Your task to perform on an android device: Open eBay Image 0: 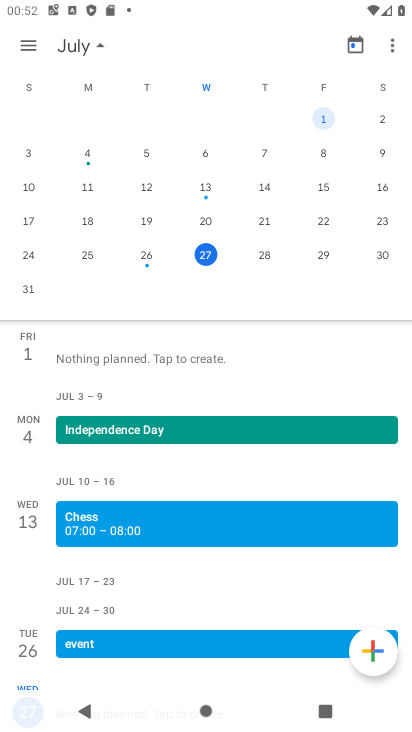
Step 0: press home button
Your task to perform on an android device: Open eBay Image 1: 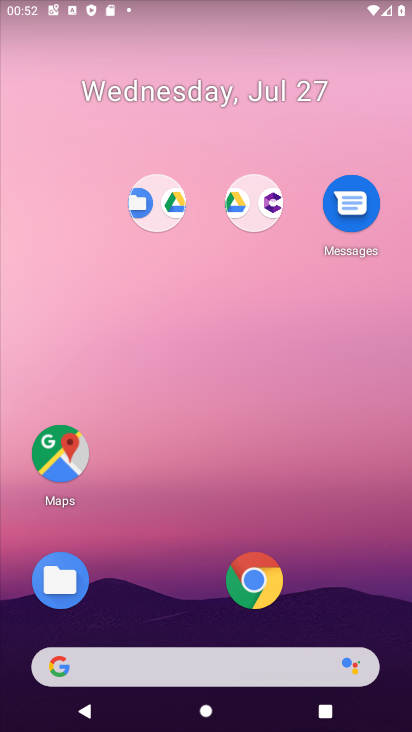
Step 1: click (253, 605)
Your task to perform on an android device: Open eBay Image 2: 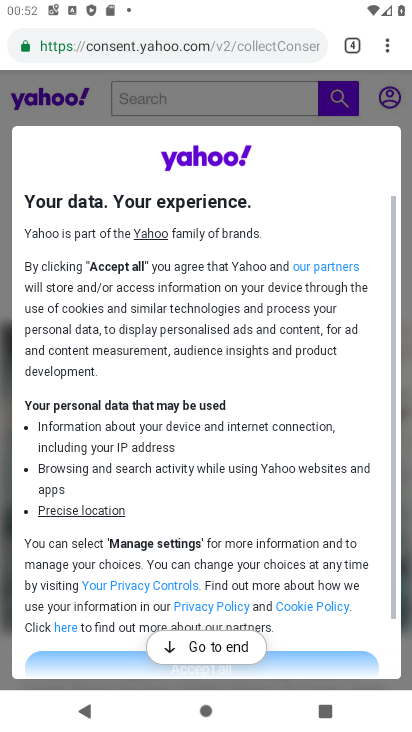
Step 2: click (351, 48)
Your task to perform on an android device: Open eBay Image 3: 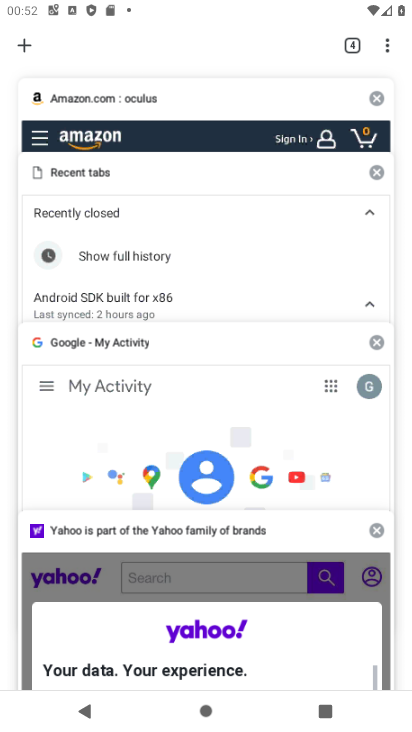
Step 3: click (29, 49)
Your task to perform on an android device: Open eBay Image 4: 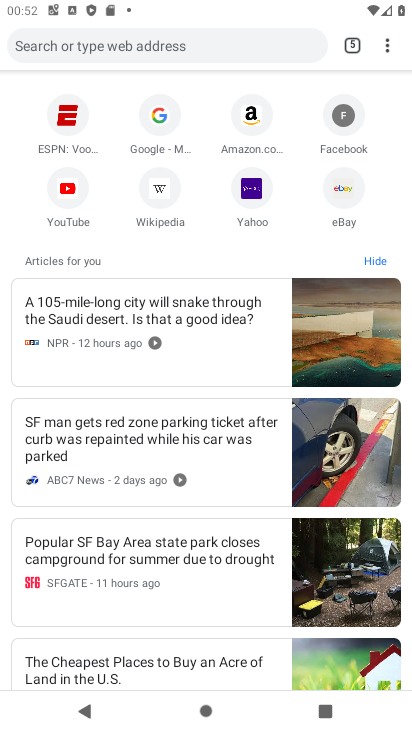
Step 4: click (355, 187)
Your task to perform on an android device: Open eBay Image 5: 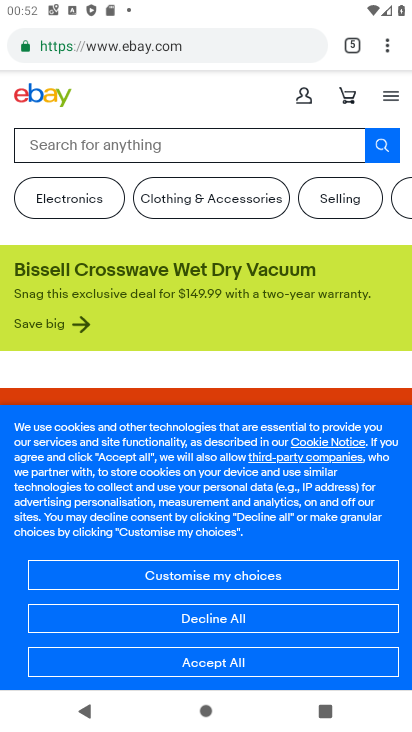
Step 5: task complete